Your task to perform on an android device: Is it going to rain this weekend? Image 0: 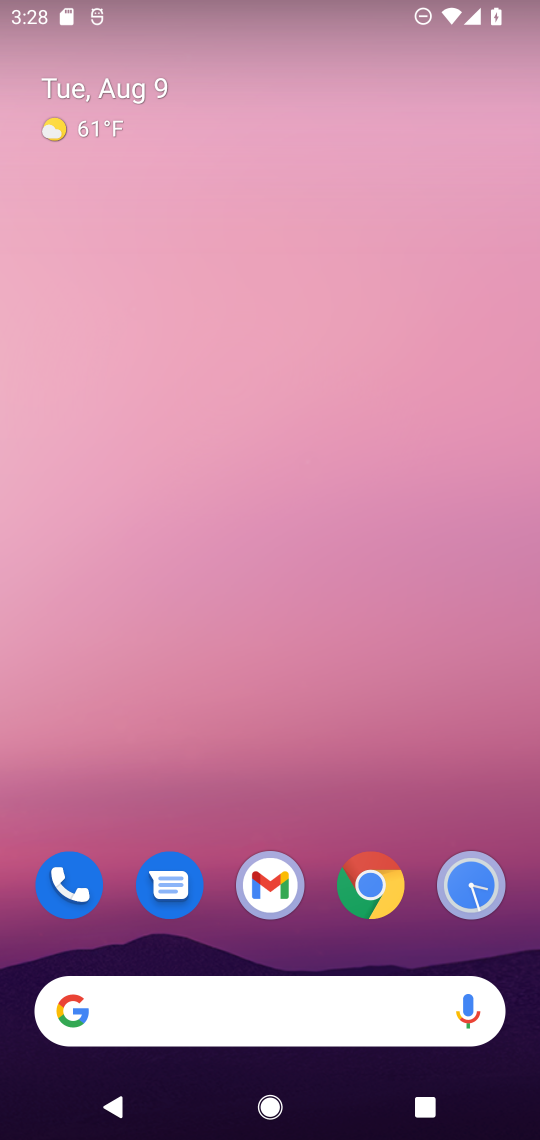
Step 0: click (278, 1001)
Your task to perform on an android device: Is it going to rain this weekend? Image 1: 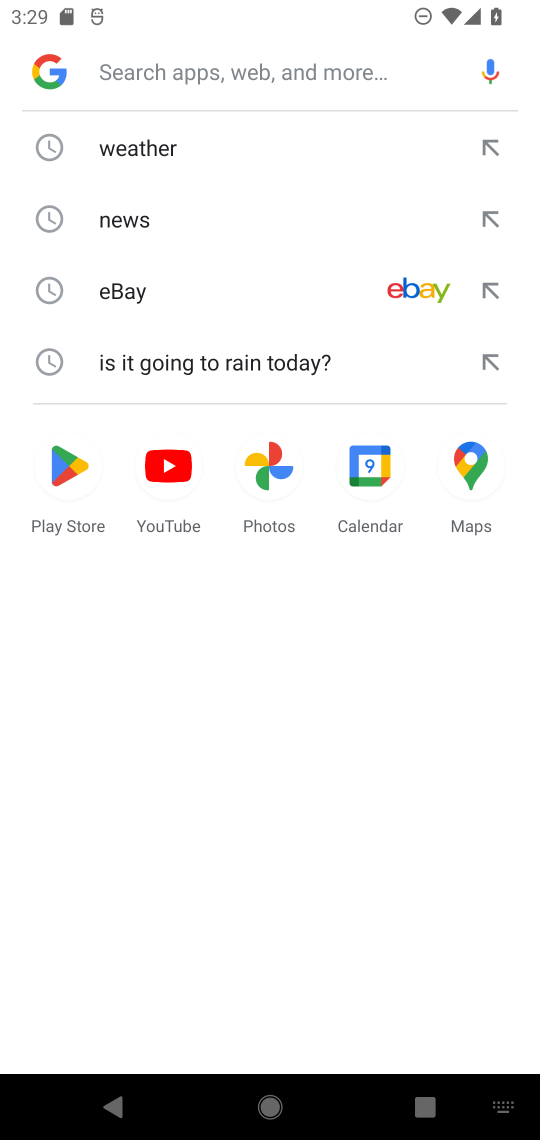
Step 1: type "Is it going to rain this weekend?"
Your task to perform on an android device: Is it going to rain this weekend? Image 2: 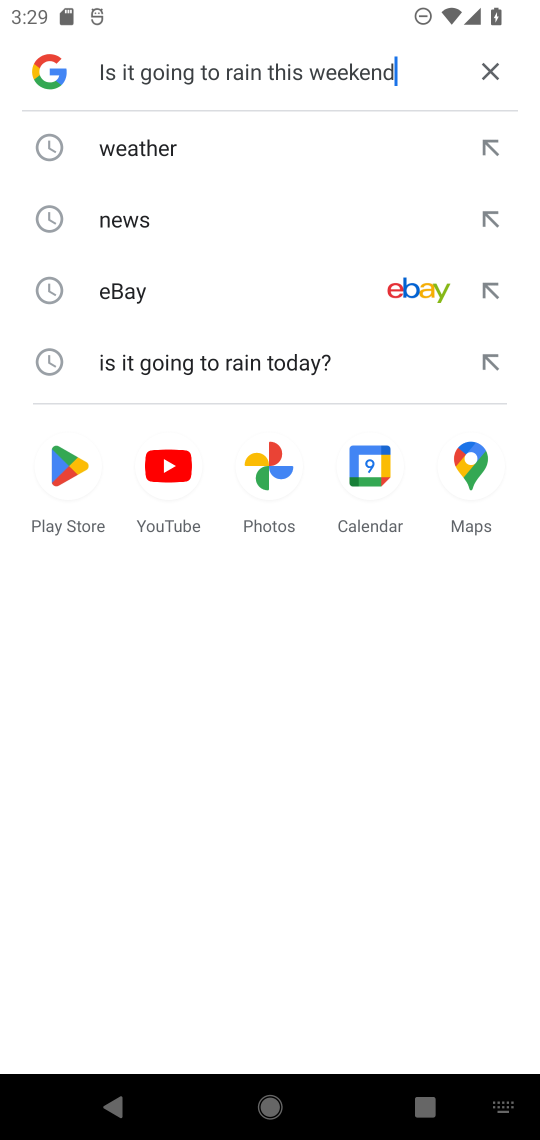
Step 2: press enter
Your task to perform on an android device: Is it going to rain this weekend? Image 3: 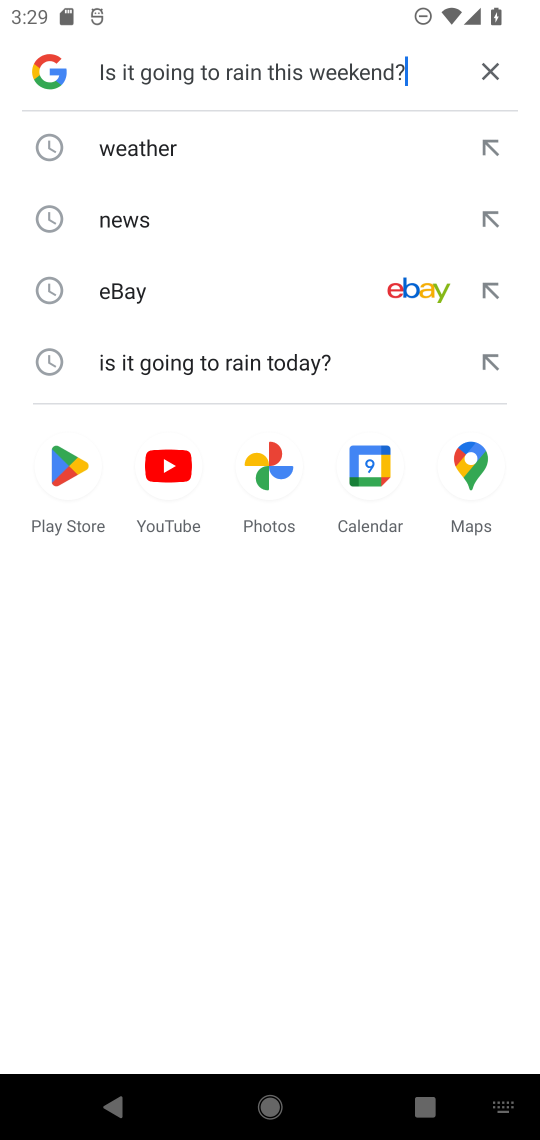
Step 3: type ""
Your task to perform on an android device: Is it going to rain this weekend? Image 4: 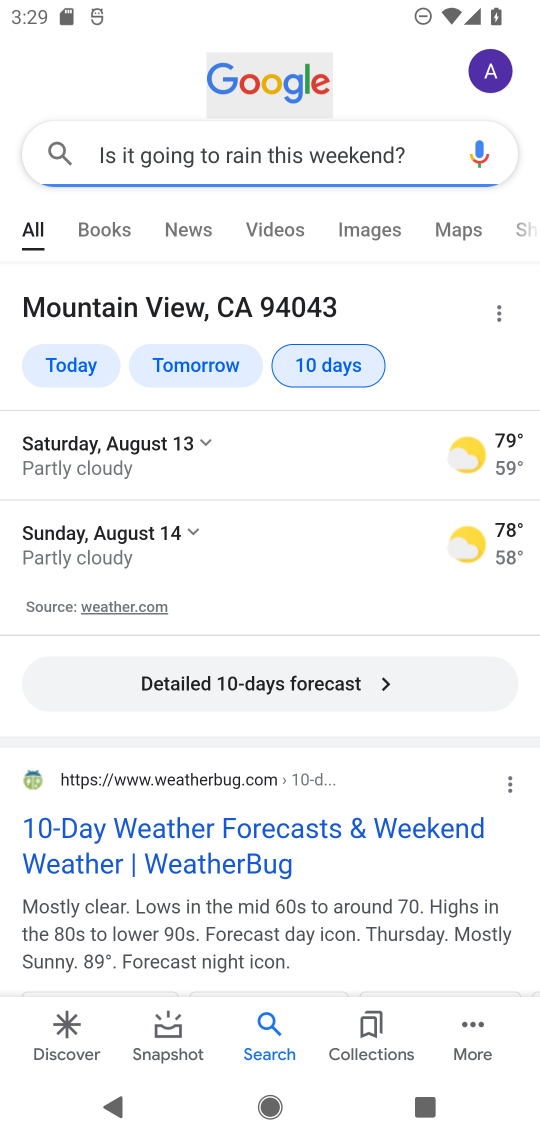
Step 4: task complete